Your task to perform on an android device: Open network settings Image 0: 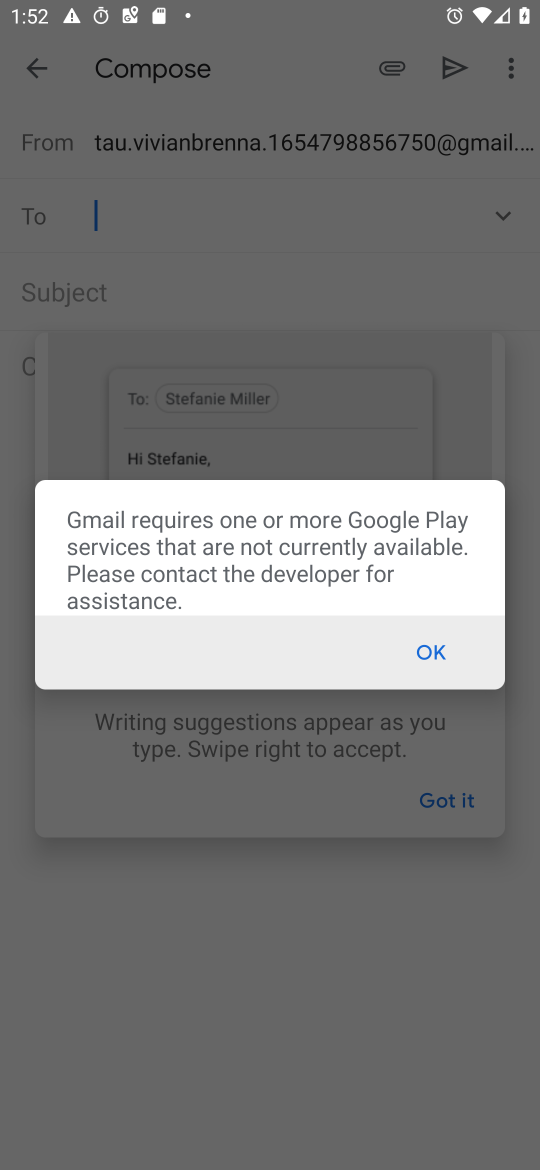
Step 0: press home button
Your task to perform on an android device: Open network settings Image 1: 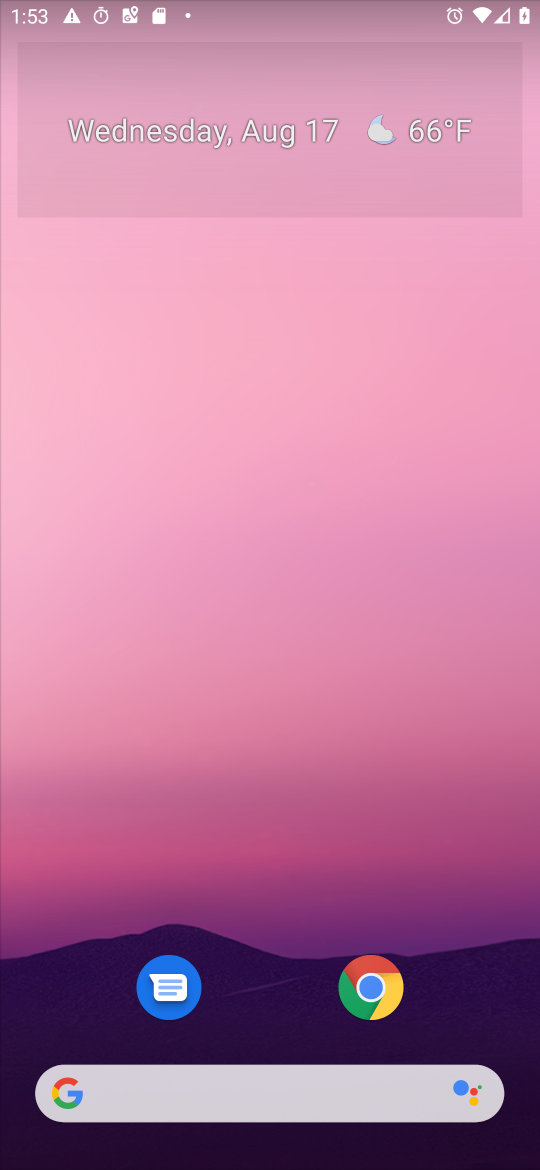
Step 1: drag from (46, 1150) to (359, 487)
Your task to perform on an android device: Open network settings Image 2: 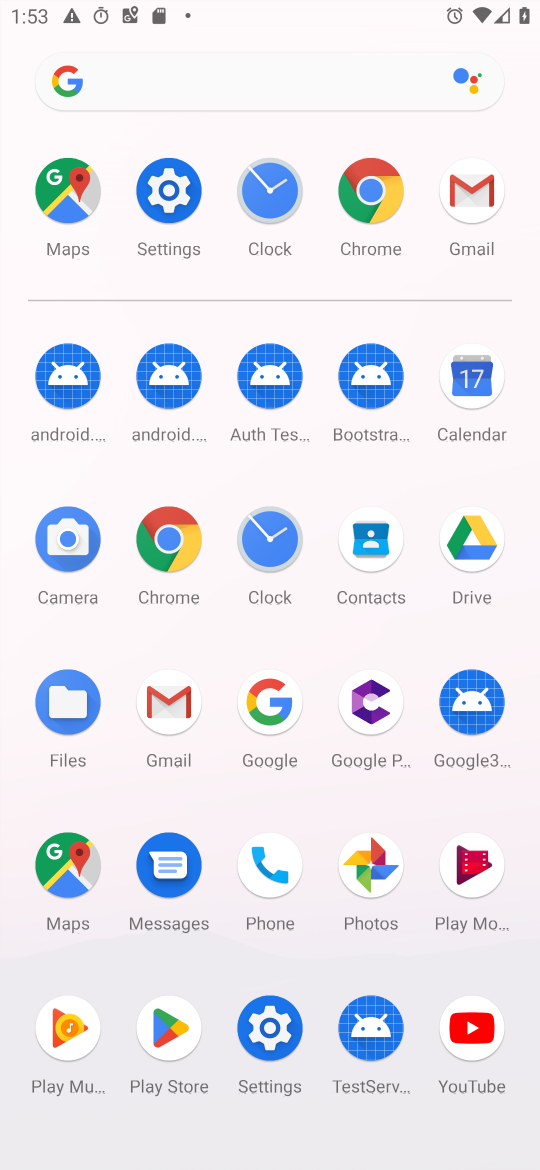
Step 2: click (262, 1045)
Your task to perform on an android device: Open network settings Image 3: 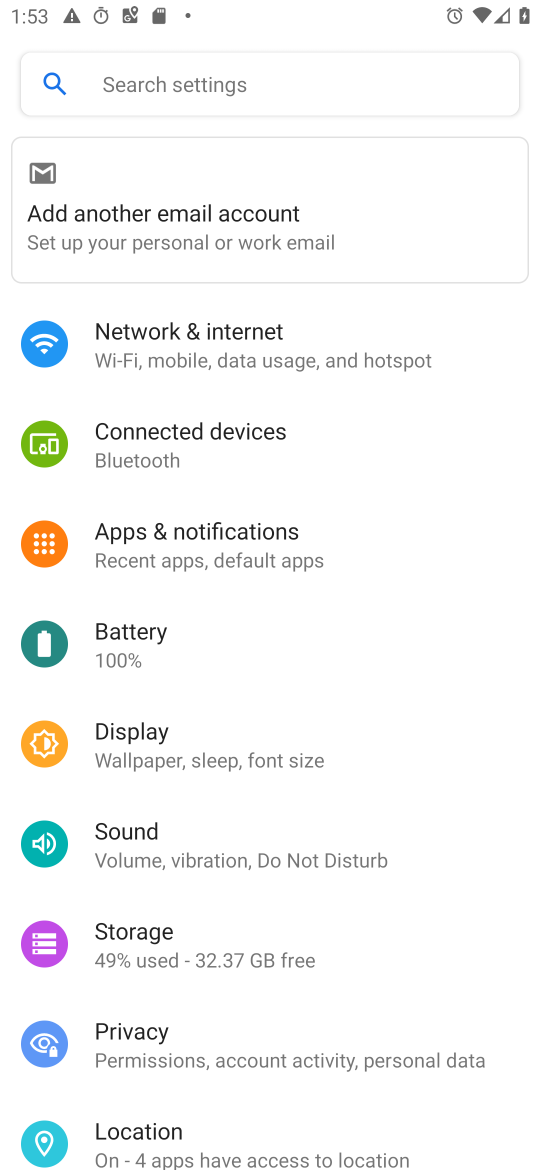
Step 3: click (263, 366)
Your task to perform on an android device: Open network settings Image 4: 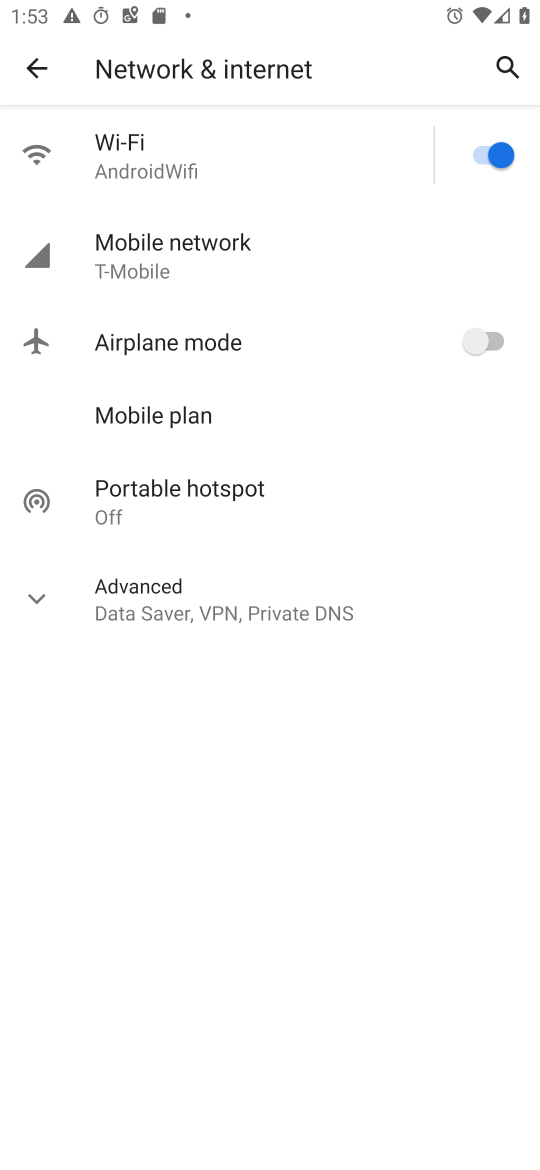
Step 4: task complete